Your task to perform on an android device: Check the news Image 0: 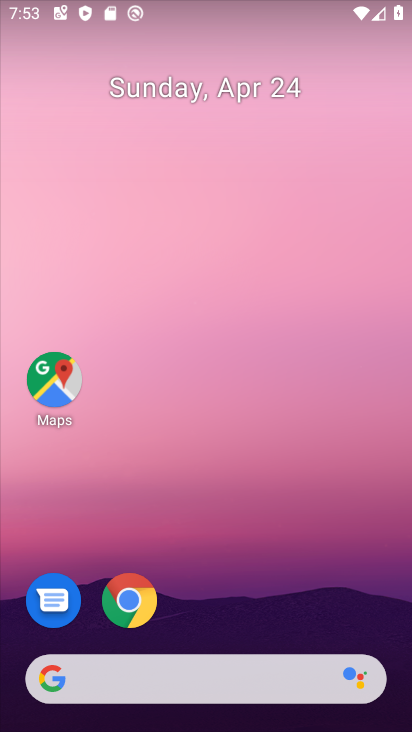
Step 0: drag from (2, 297) to (395, 363)
Your task to perform on an android device: Check the news Image 1: 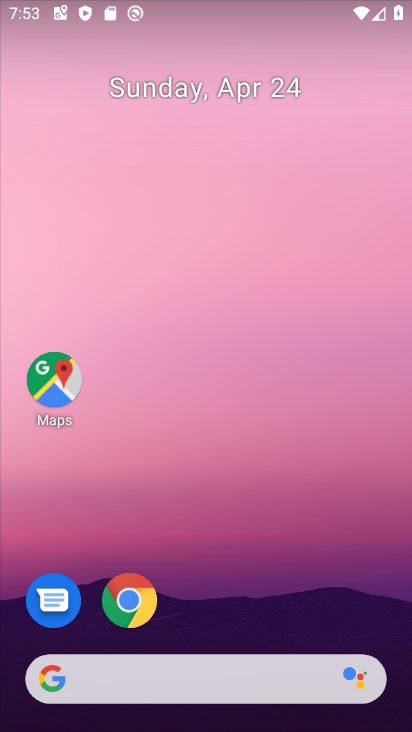
Step 1: task complete